Your task to perform on an android device: turn off airplane mode Image 0: 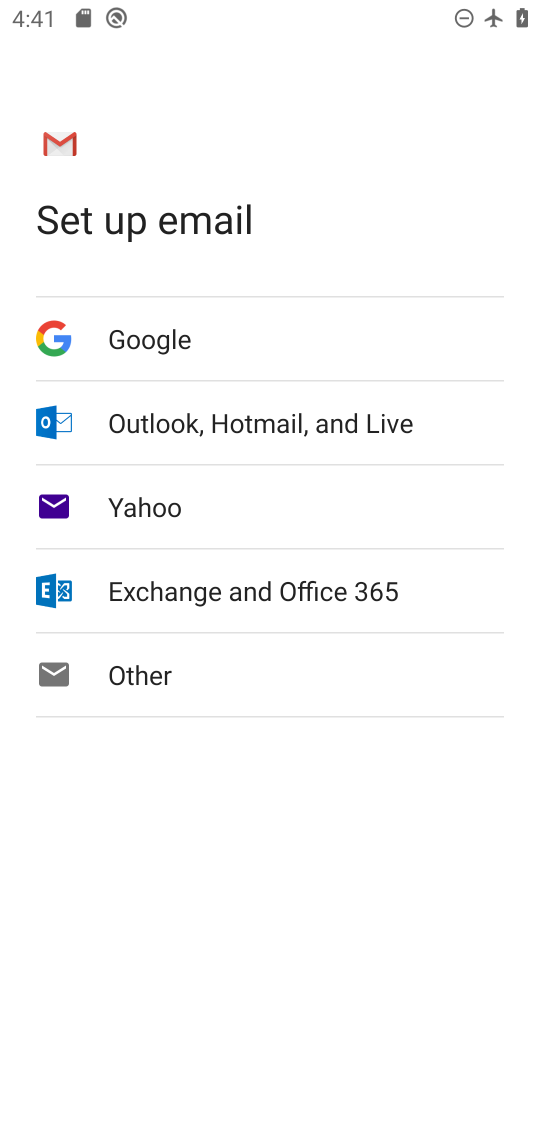
Step 0: press home button
Your task to perform on an android device: turn off airplane mode Image 1: 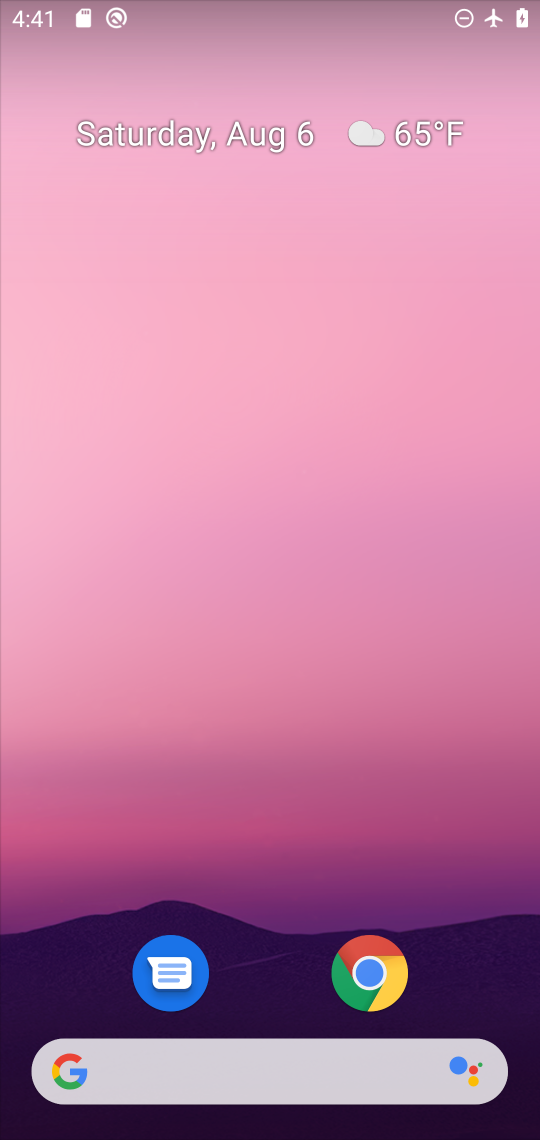
Step 1: drag from (269, 906) to (532, 911)
Your task to perform on an android device: turn off airplane mode Image 2: 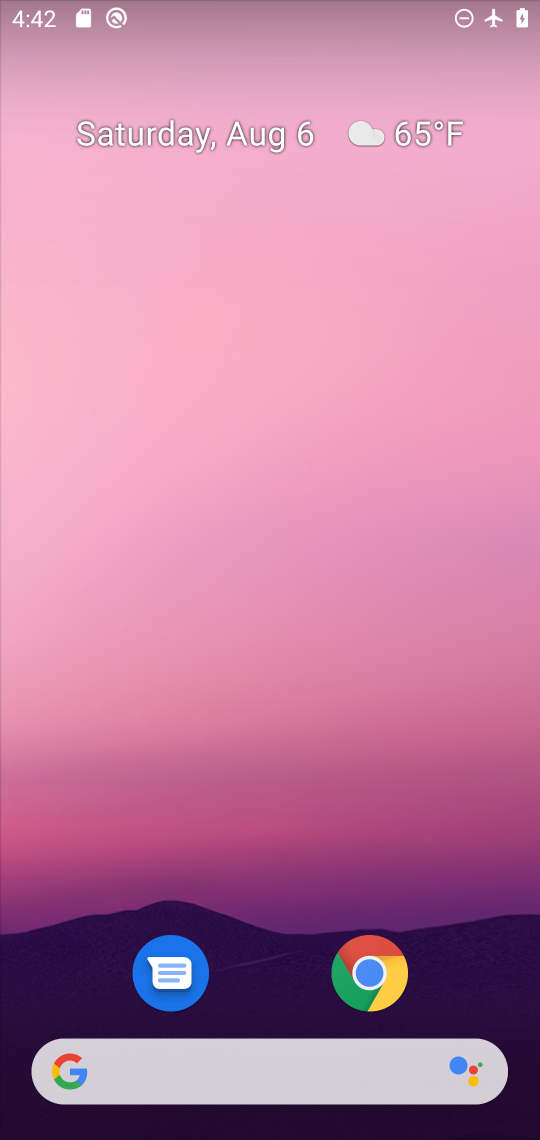
Step 2: drag from (283, 790) to (218, 140)
Your task to perform on an android device: turn off airplane mode Image 3: 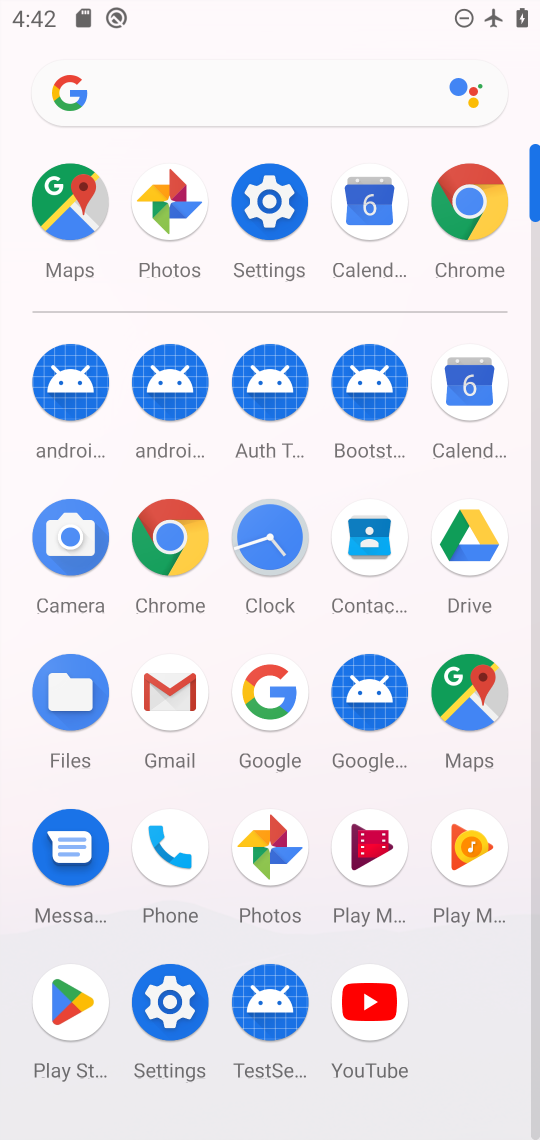
Step 3: click (249, 214)
Your task to perform on an android device: turn off airplane mode Image 4: 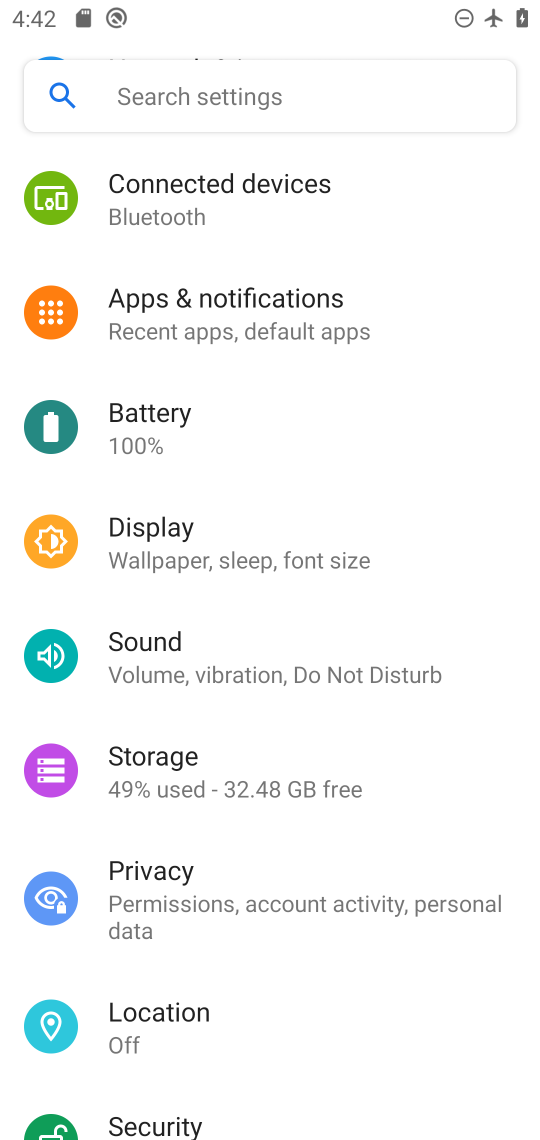
Step 4: drag from (368, 218) to (266, 792)
Your task to perform on an android device: turn off airplane mode Image 5: 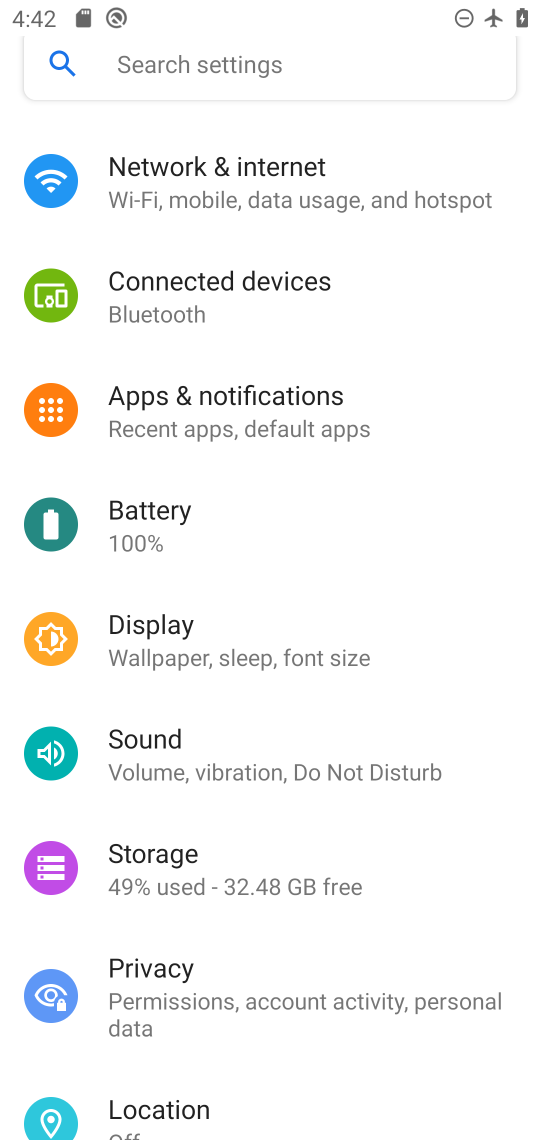
Step 5: click (229, 184)
Your task to perform on an android device: turn off airplane mode Image 6: 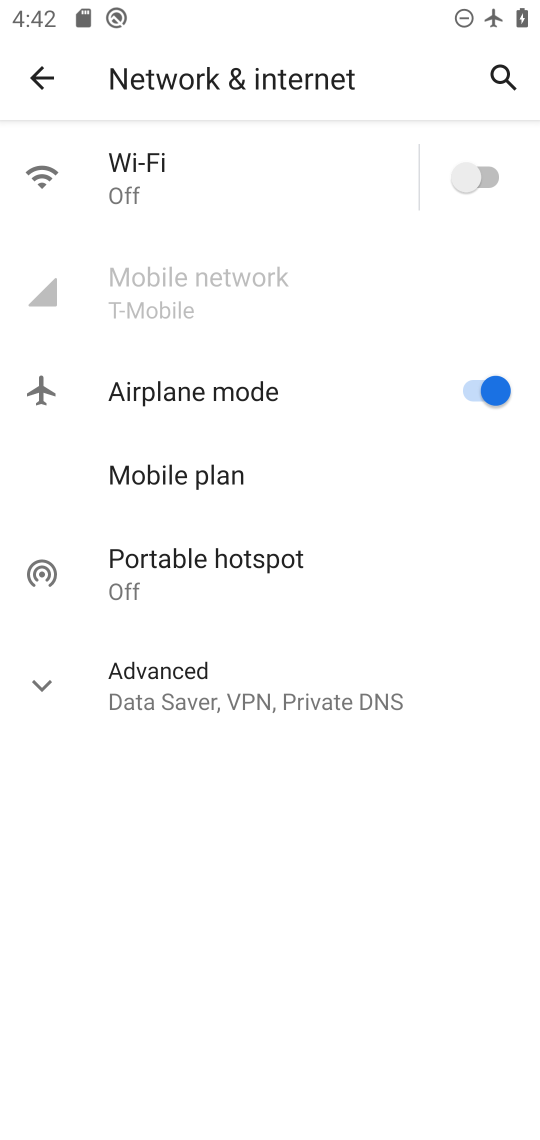
Step 6: click (468, 389)
Your task to perform on an android device: turn off airplane mode Image 7: 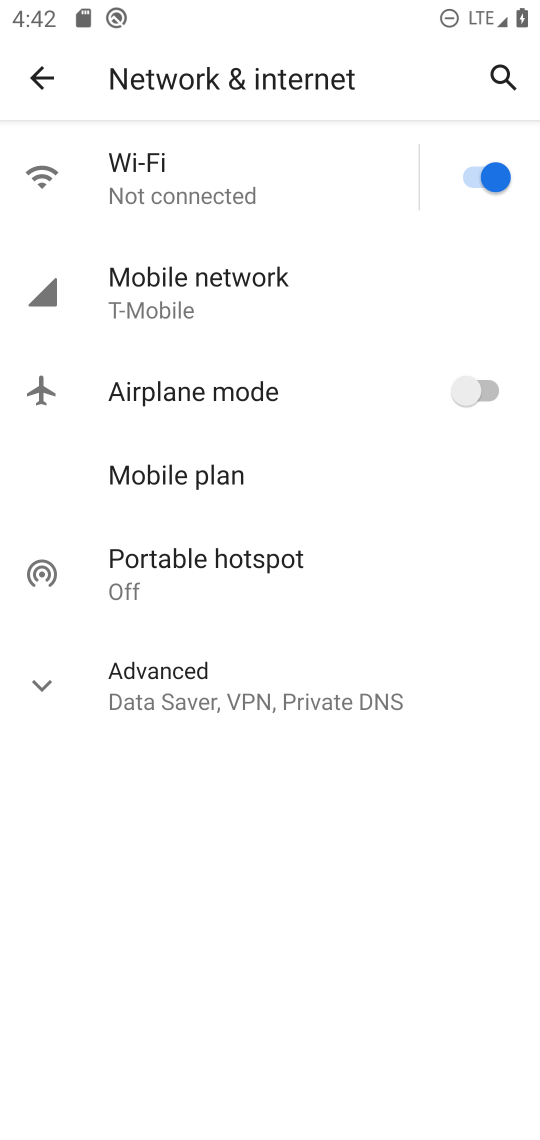
Step 7: task complete